Your task to perform on an android device: turn off location Image 0: 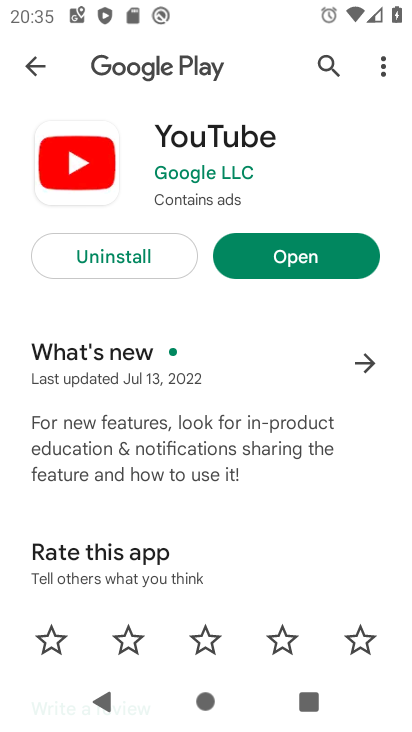
Step 0: press home button
Your task to perform on an android device: turn off location Image 1: 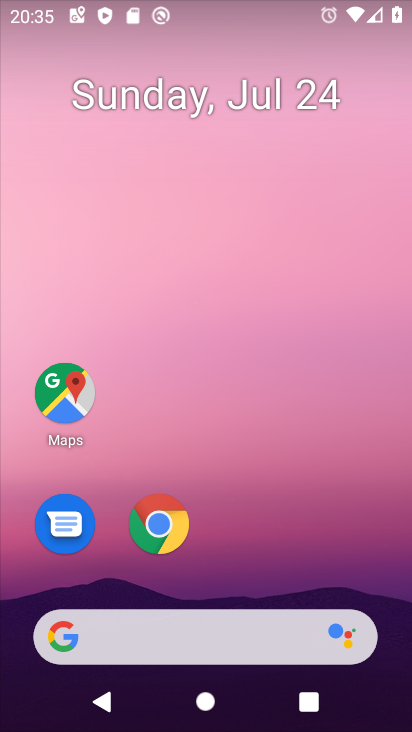
Step 1: drag from (252, 565) to (266, 0)
Your task to perform on an android device: turn off location Image 2: 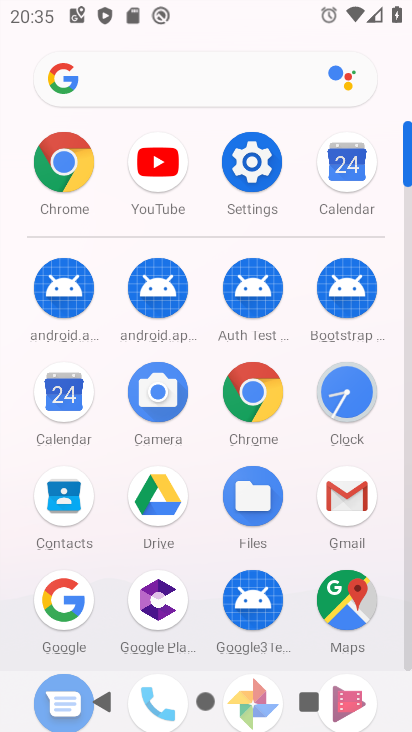
Step 2: click (260, 158)
Your task to perform on an android device: turn off location Image 3: 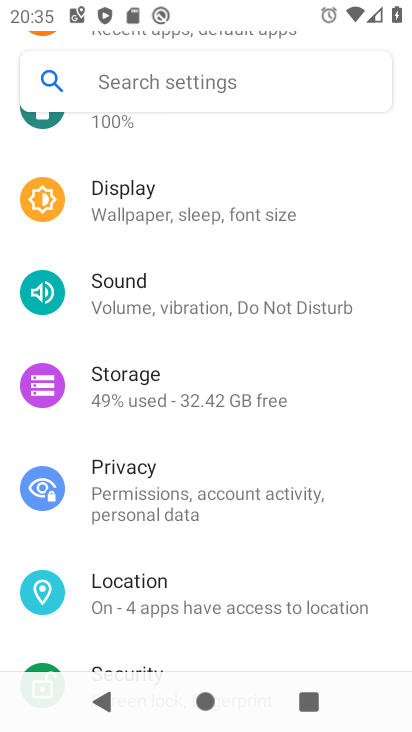
Step 3: click (191, 603)
Your task to perform on an android device: turn off location Image 4: 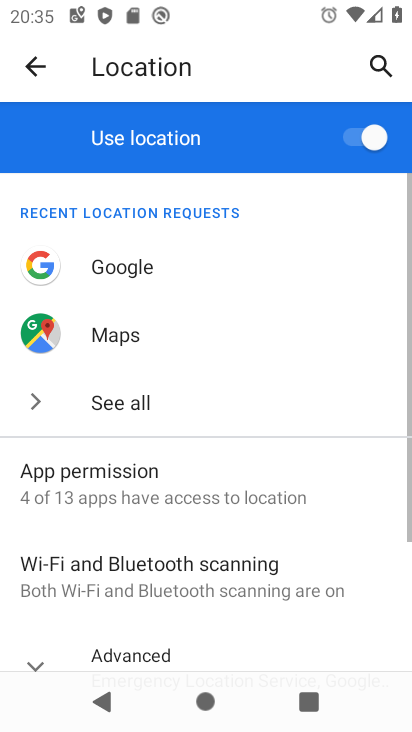
Step 4: click (360, 139)
Your task to perform on an android device: turn off location Image 5: 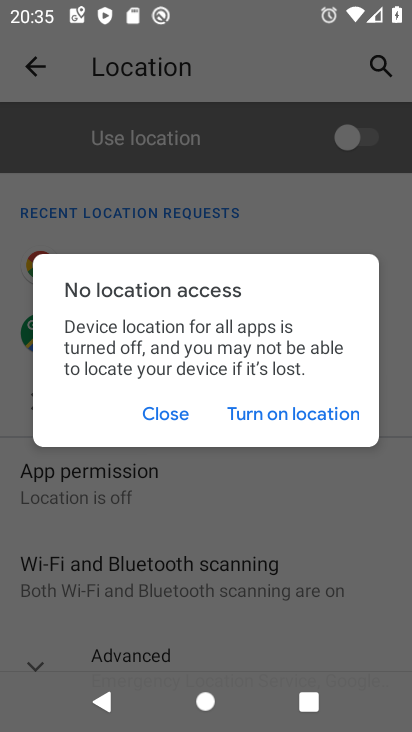
Step 5: click (171, 404)
Your task to perform on an android device: turn off location Image 6: 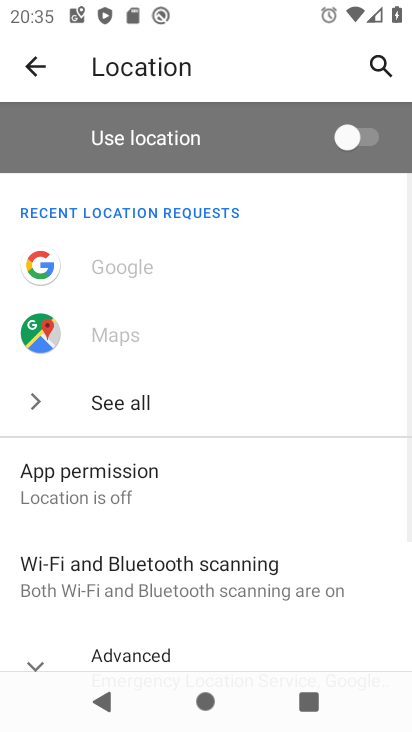
Step 6: task complete